Your task to perform on an android device: open the mobile data screen to see how much data has been used Image 0: 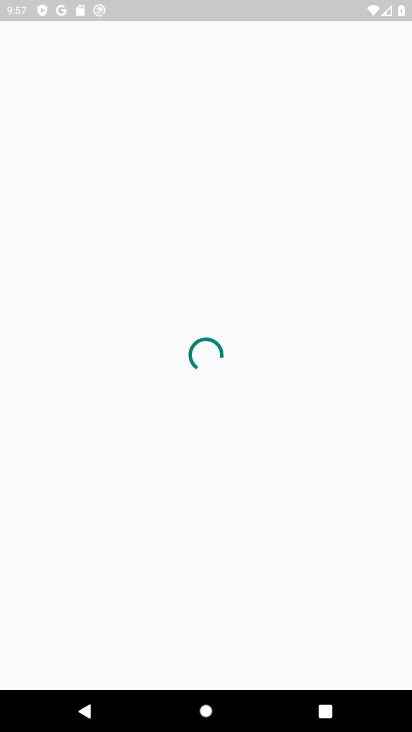
Step 0: drag from (224, 658) to (202, 302)
Your task to perform on an android device: open the mobile data screen to see how much data has been used Image 1: 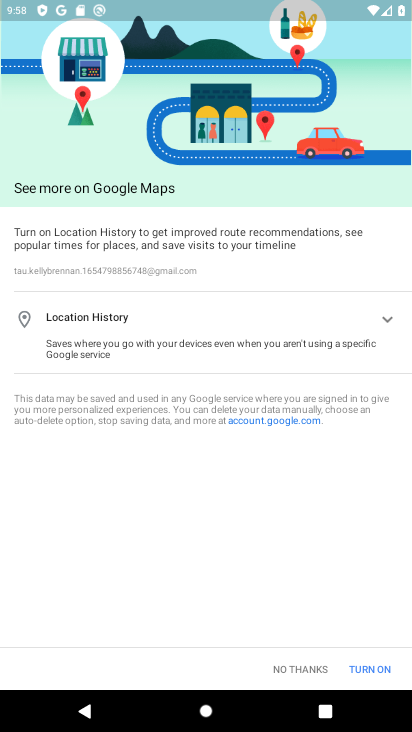
Step 1: press home button
Your task to perform on an android device: open the mobile data screen to see how much data has been used Image 2: 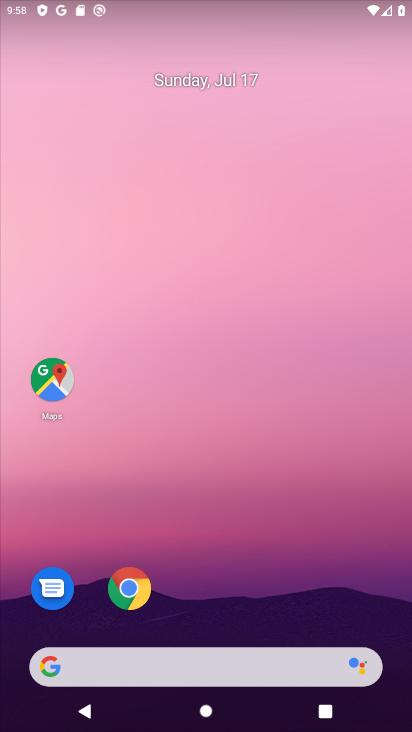
Step 2: drag from (224, 575) to (239, 7)
Your task to perform on an android device: open the mobile data screen to see how much data has been used Image 3: 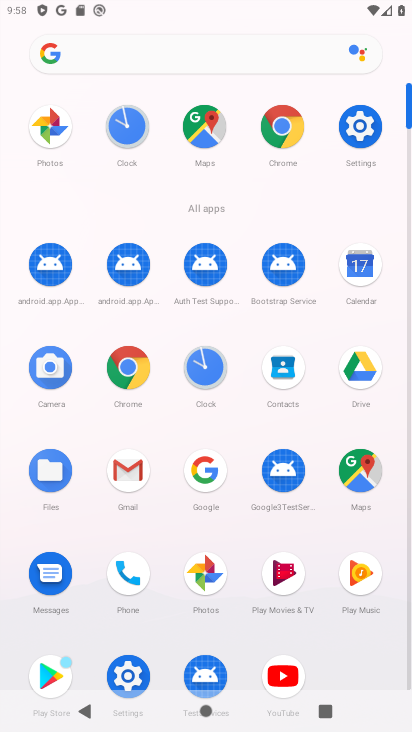
Step 3: click (120, 686)
Your task to perform on an android device: open the mobile data screen to see how much data has been used Image 4: 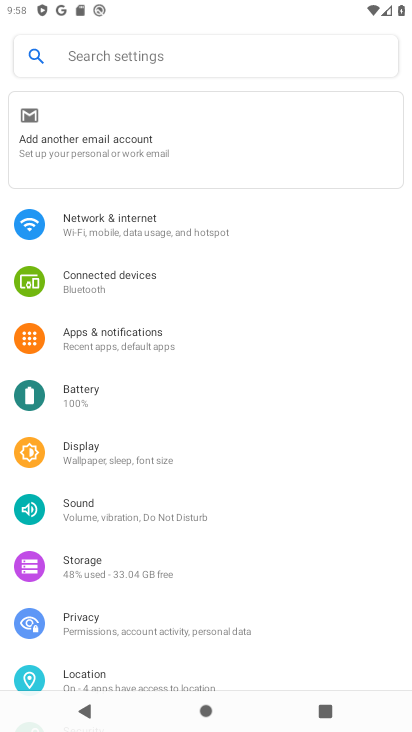
Step 4: click (79, 222)
Your task to perform on an android device: open the mobile data screen to see how much data has been used Image 5: 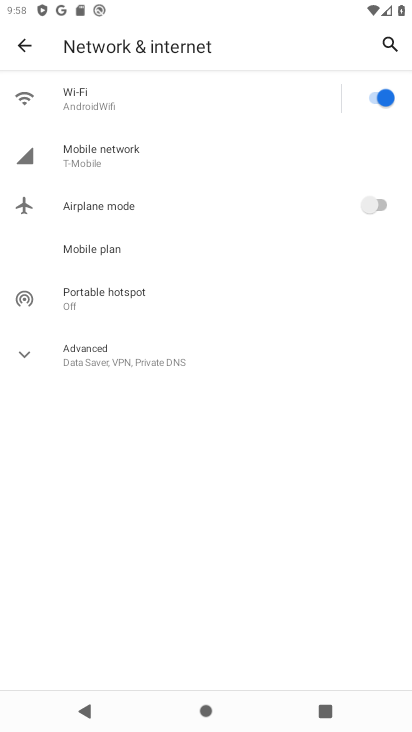
Step 5: click (96, 154)
Your task to perform on an android device: open the mobile data screen to see how much data has been used Image 6: 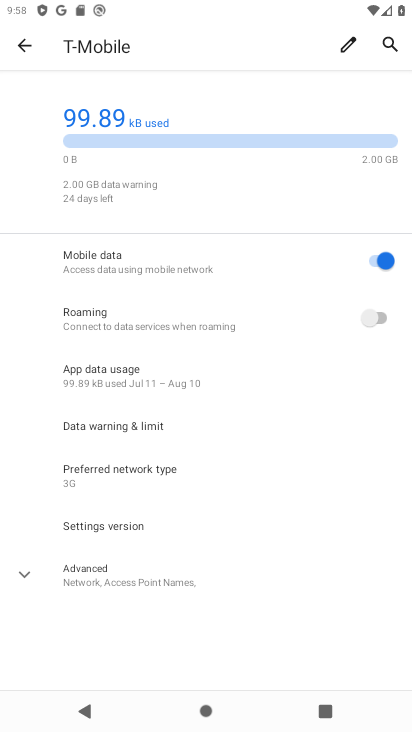
Step 6: task complete